Your task to perform on an android device: turn notification dots on Image 0: 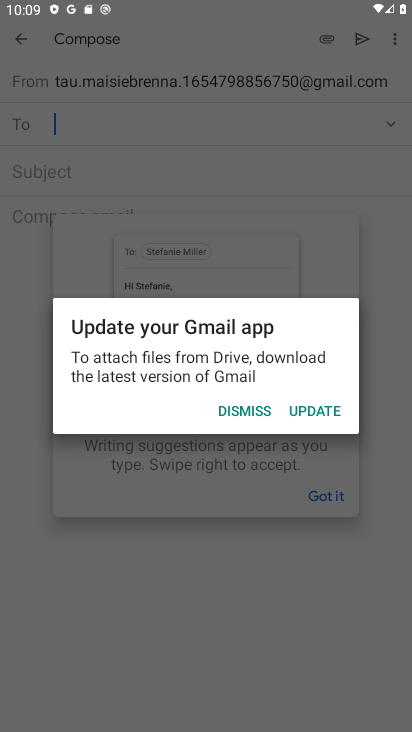
Step 0: press home button
Your task to perform on an android device: turn notification dots on Image 1: 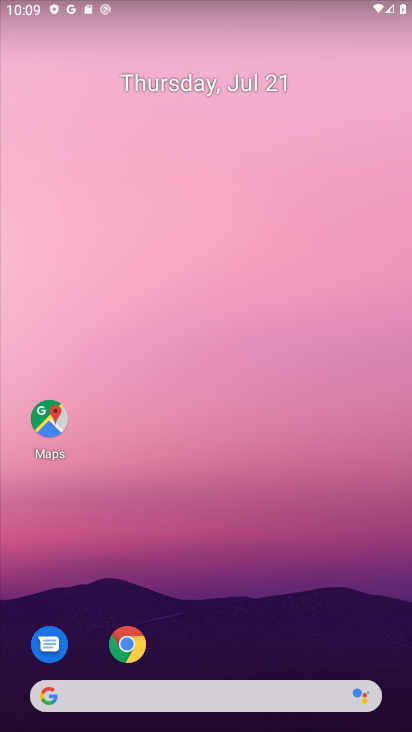
Step 1: drag from (217, 653) to (264, 225)
Your task to perform on an android device: turn notification dots on Image 2: 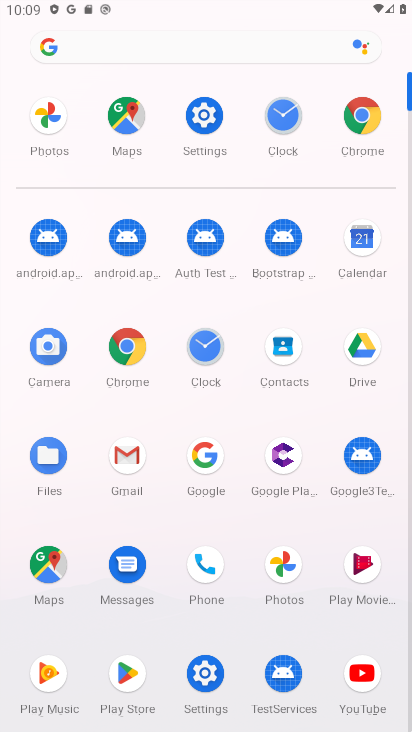
Step 2: click (205, 114)
Your task to perform on an android device: turn notification dots on Image 3: 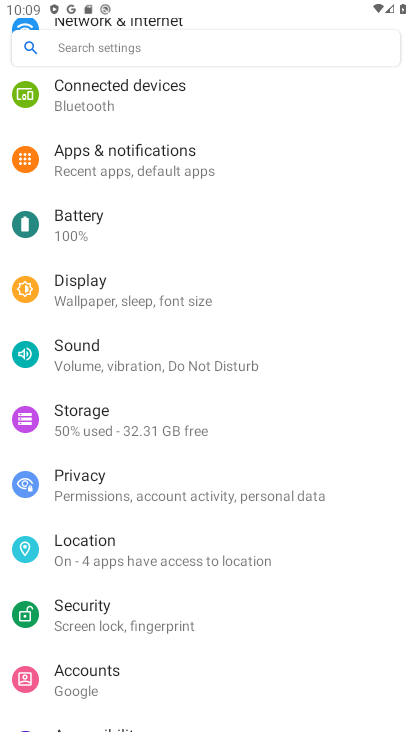
Step 3: click (142, 150)
Your task to perform on an android device: turn notification dots on Image 4: 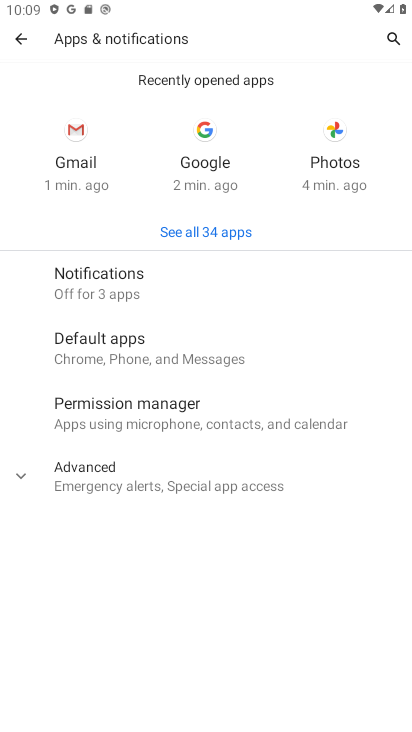
Step 4: click (159, 277)
Your task to perform on an android device: turn notification dots on Image 5: 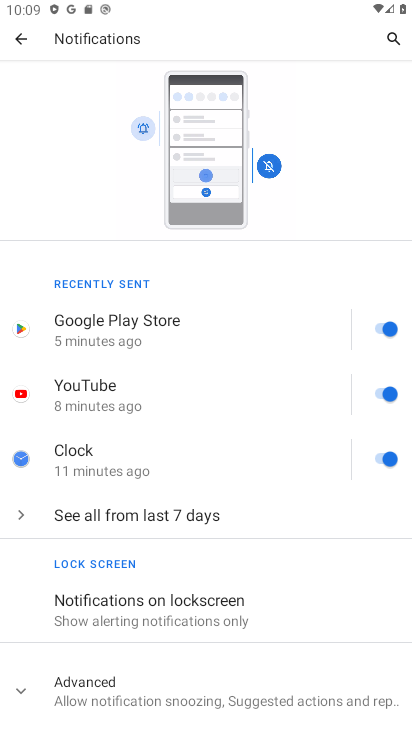
Step 5: click (126, 683)
Your task to perform on an android device: turn notification dots on Image 6: 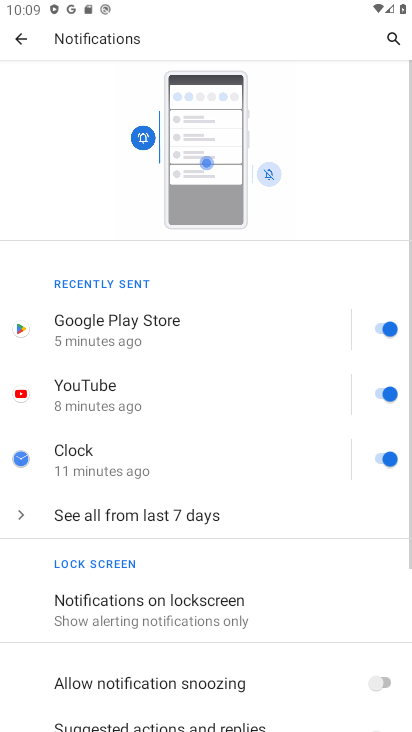
Step 6: drag from (147, 689) to (228, 158)
Your task to perform on an android device: turn notification dots on Image 7: 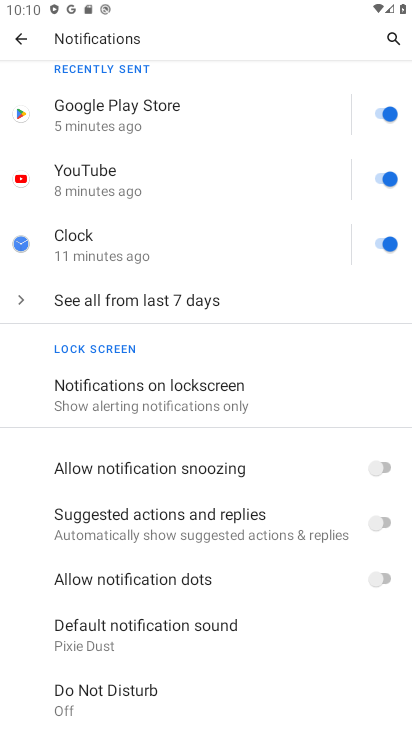
Step 7: click (388, 569)
Your task to perform on an android device: turn notification dots on Image 8: 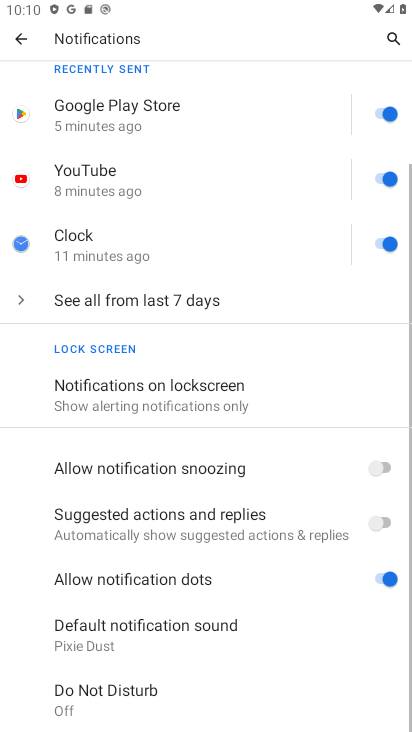
Step 8: task complete